Your task to perform on an android device: turn off picture-in-picture Image 0: 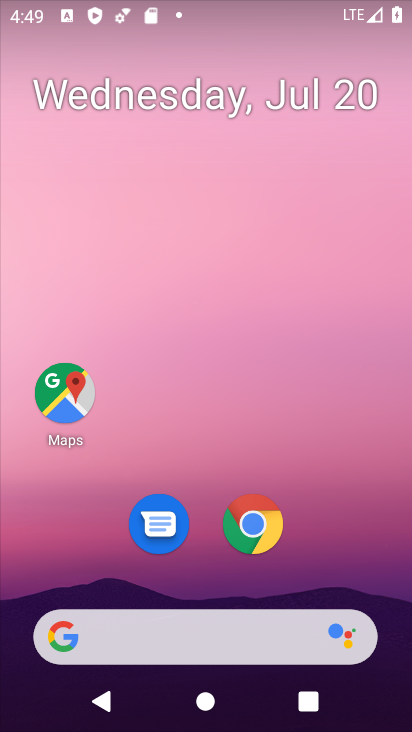
Step 0: click (274, 509)
Your task to perform on an android device: turn off picture-in-picture Image 1: 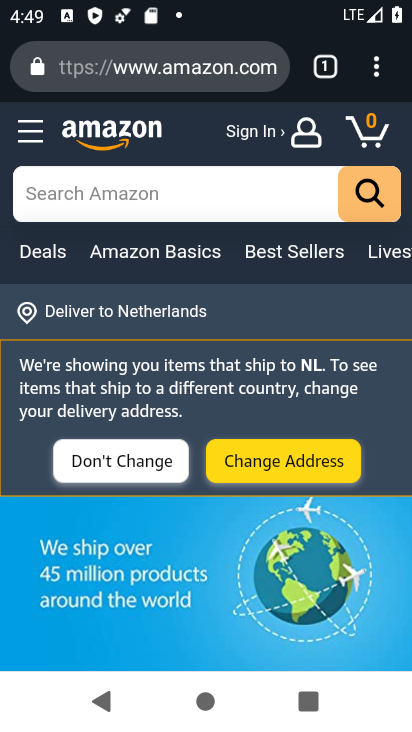
Step 1: press home button
Your task to perform on an android device: turn off picture-in-picture Image 2: 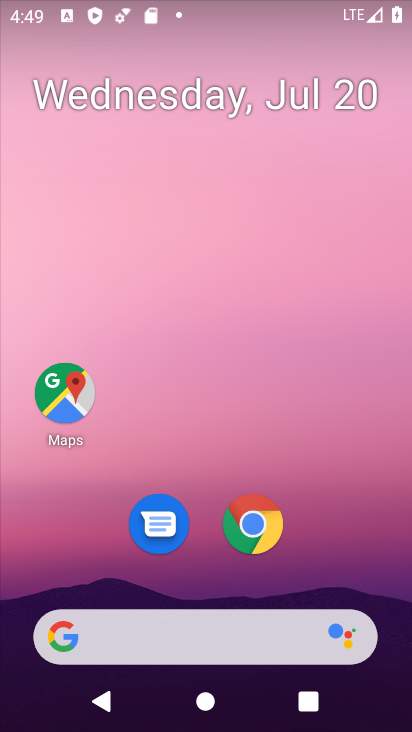
Step 2: click (259, 528)
Your task to perform on an android device: turn off picture-in-picture Image 3: 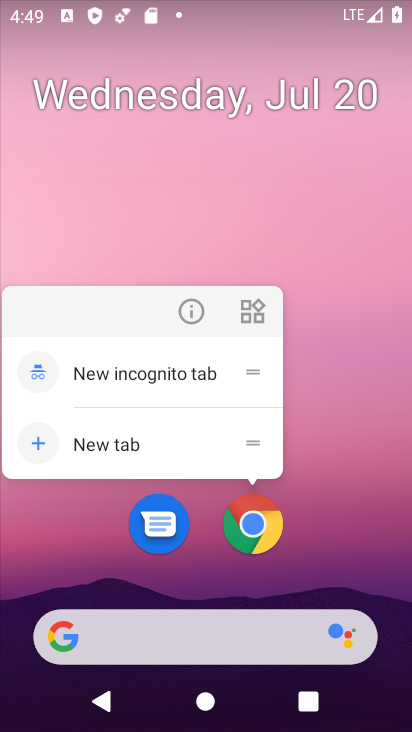
Step 3: click (191, 301)
Your task to perform on an android device: turn off picture-in-picture Image 4: 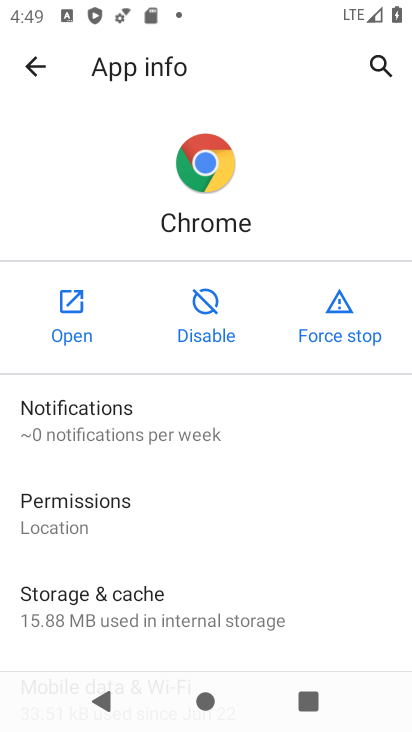
Step 4: drag from (159, 543) to (215, 55)
Your task to perform on an android device: turn off picture-in-picture Image 5: 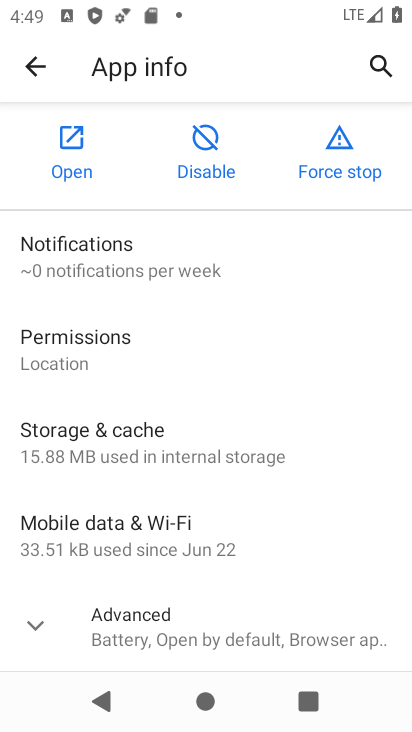
Step 5: click (45, 618)
Your task to perform on an android device: turn off picture-in-picture Image 6: 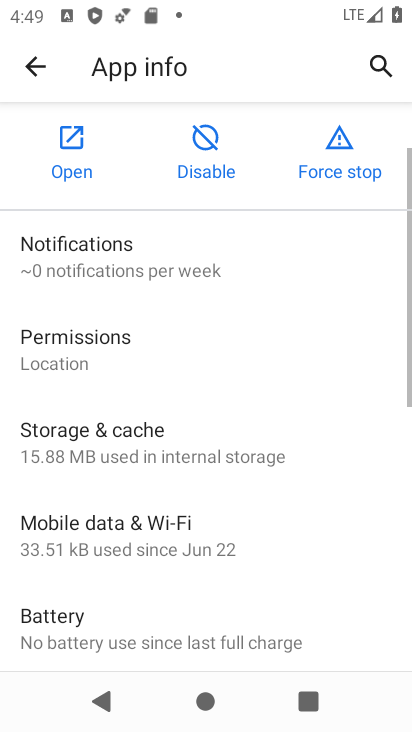
Step 6: drag from (171, 566) to (240, 83)
Your task to perform on an android device: turn off picture-in-picture Image 7: 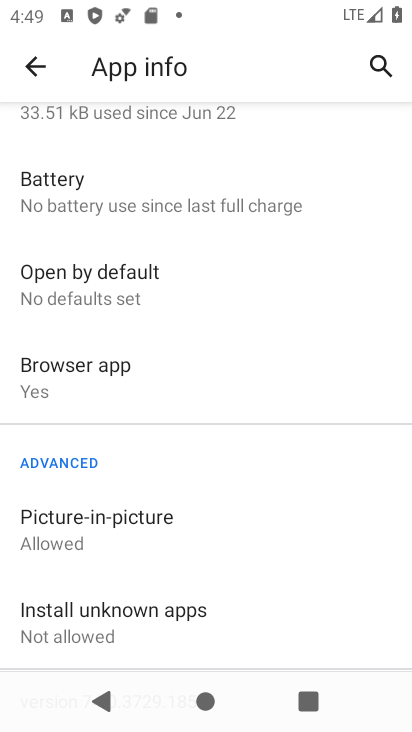
Step 7: click (136, 524)
Your task to perform on an android device: turn off picture-in-picture Image 8: 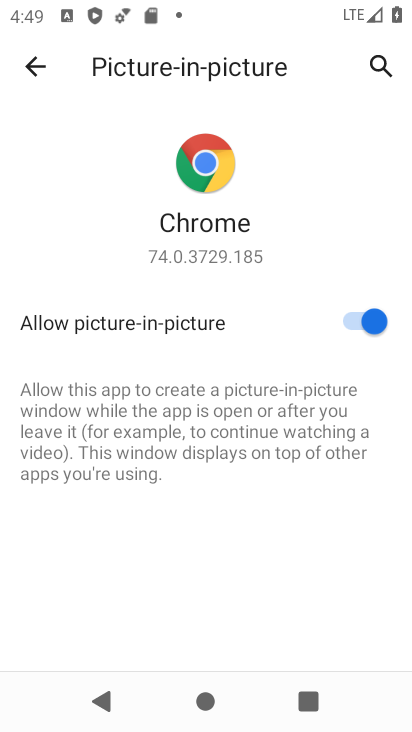
Step 8: click (360, 307)
Your task to perform on an android device: turn off picture-in-picture Image 9: 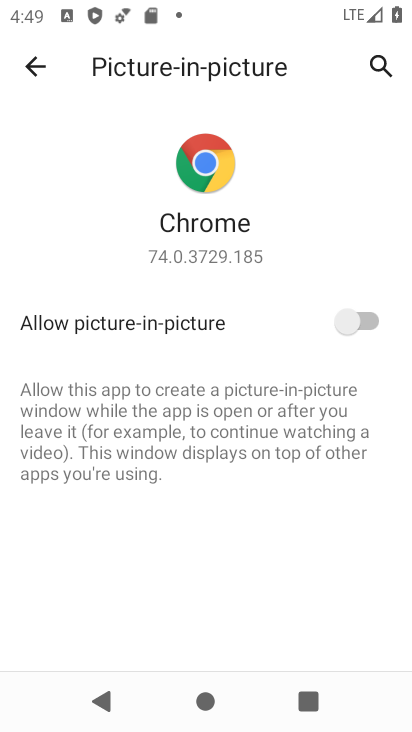
Step 9: task complete